Your task to perform on an android device: turn on notifications settings in the gmail app Image 0: 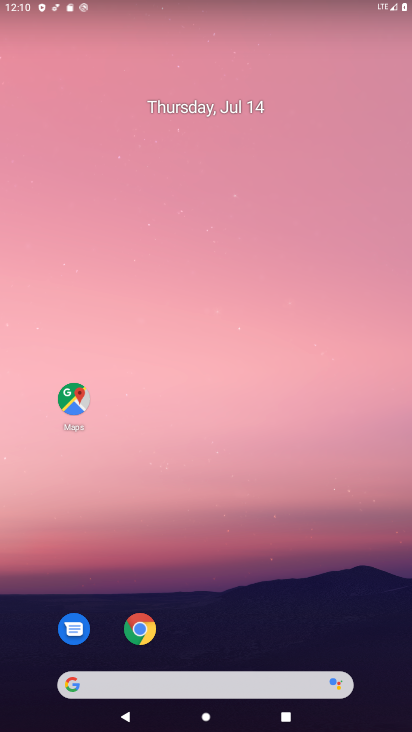
Step 0: drag from (245, 574) to (343, 72)
Your task to perform on an android device: turn on notifications settings in the gmail app Image 1: 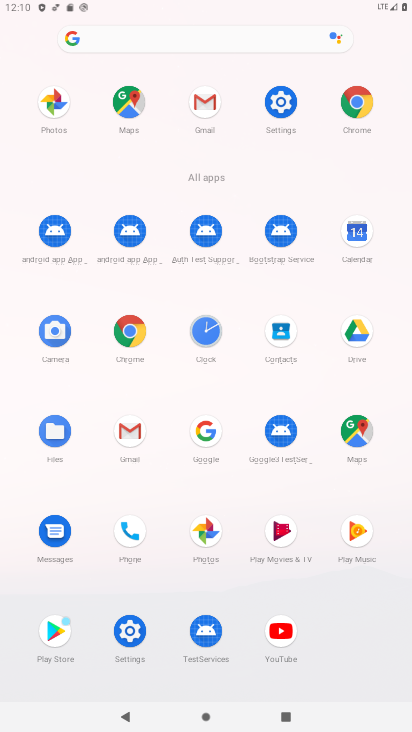
Step 1: click (205, 109)
Your task to perform on an android device: turn on notifications settings in the gmail app Image 2: 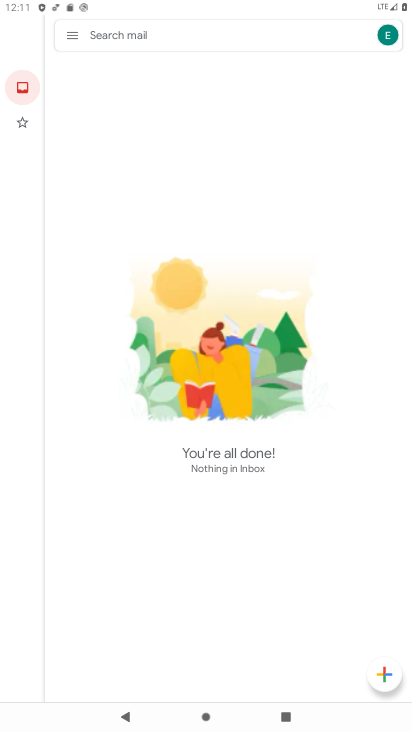
Step 2: click (72, 42)
Your task to perform on an android device: turn on notifications settings in the gmail app Image 3: 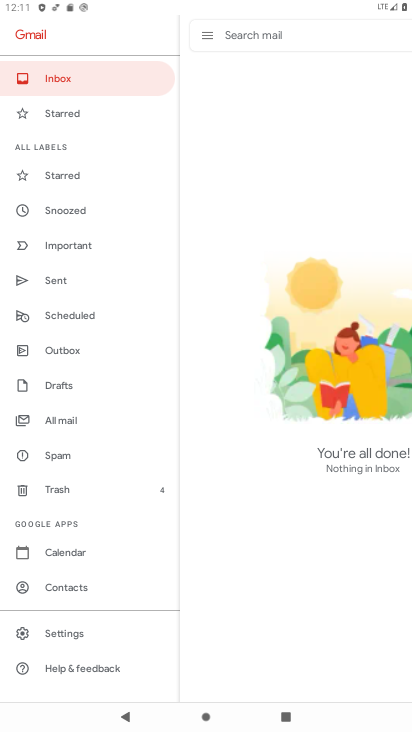
Step 3: click (61, 641)
Your task to perform on an android device: turn on notifications settings in the gmail app Image 4: 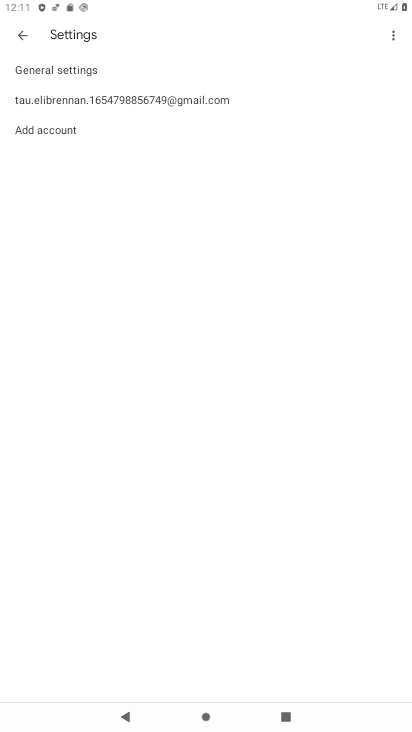
Step 4: click (145, 103)
Your task to perform on an android device: turn on notifications settings in the gmail app Image 5: 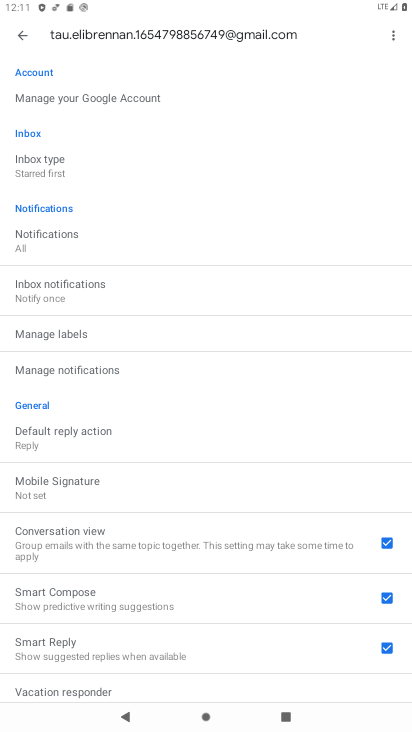
Step 5: click (60, 249)
Your task to perform on an android device: turn on notifications settings in the gmail app Image 6: 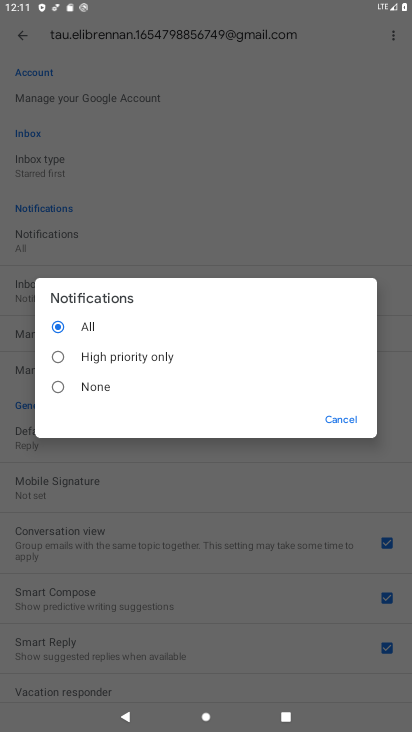
Step 6: task complete